Your task to perform on an android device: change keyboard looks Image 0: 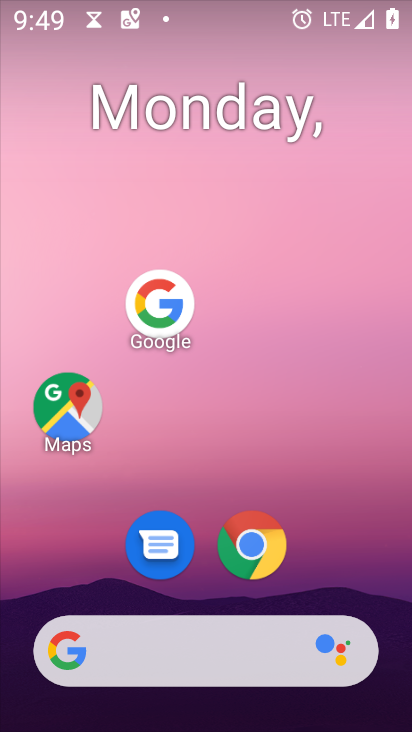
Step 0: press home button
Your task to perform on an android device: change keyboard looks Image 1: 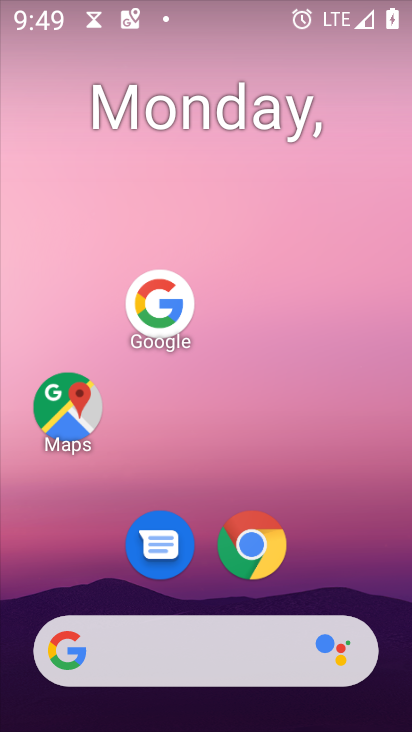
Step 1: drag from (147, 676) to (298, 153)
Your task to perform on an android device: change keyboard looks Image 2: 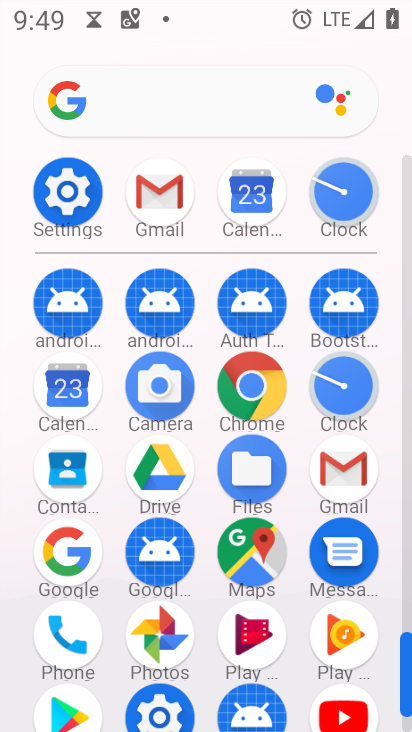
Step 2: click (75, 192)
Your task to perform on an android device: change keyboard looks Image 3: 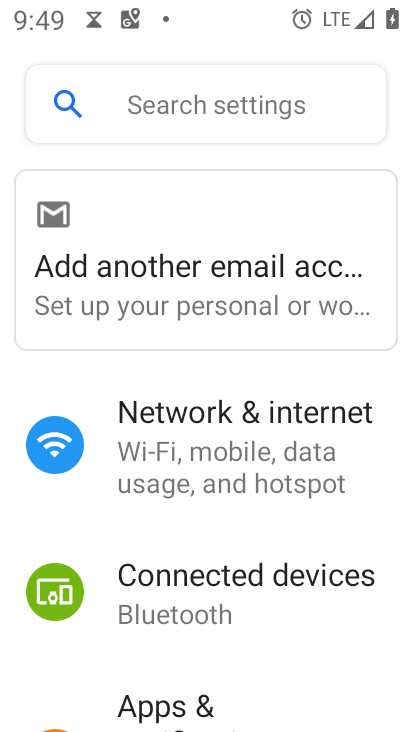
Step 3: drag from (225, 695) to (407, 39)
Your task to perform on an android device: change keyboard looks Image 4: 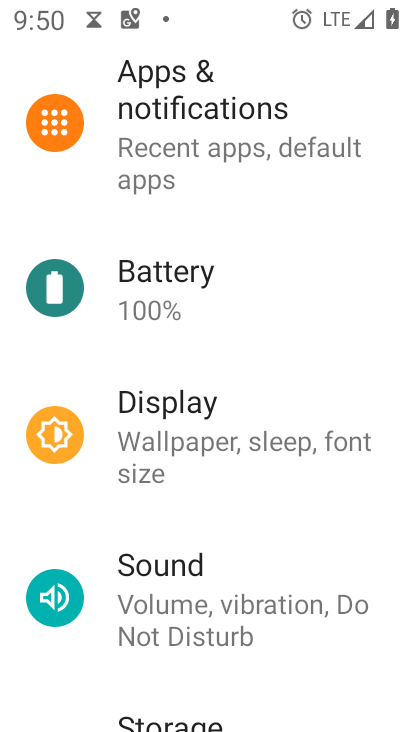
Step 4: drag from (221, 687) to (362, 34)
Your task to perform on an android device: change keyboard looks Image 5: 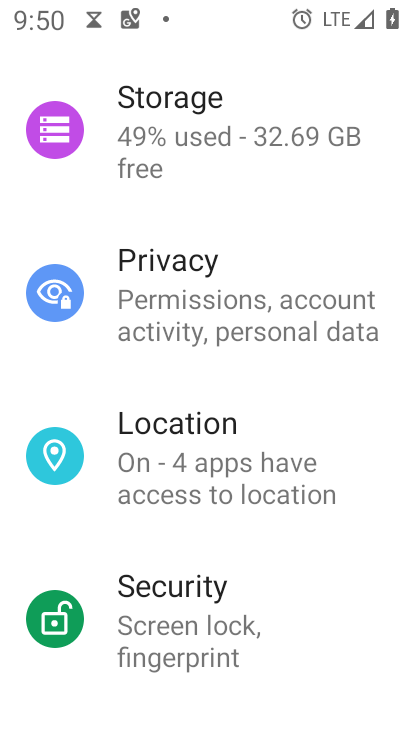
Step 5: drag from (235, 707) to (348, 113)
Your task to perform on an android device: change keyboard looks Image 6: 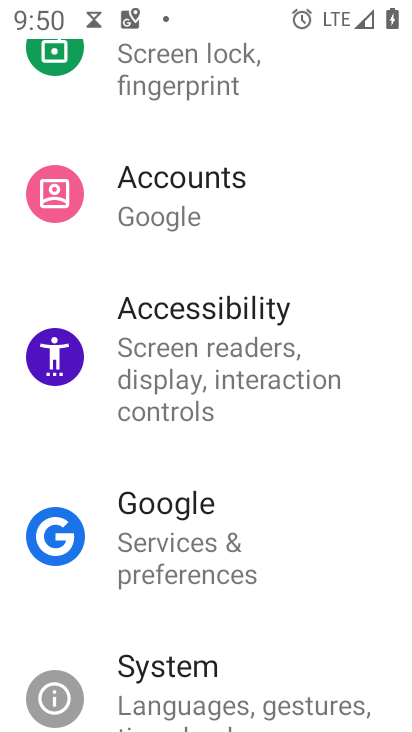
Step 6: drag from (230, 553) to (299, 258)
Your task to perform on an android device: change keyboard looks Image 7: 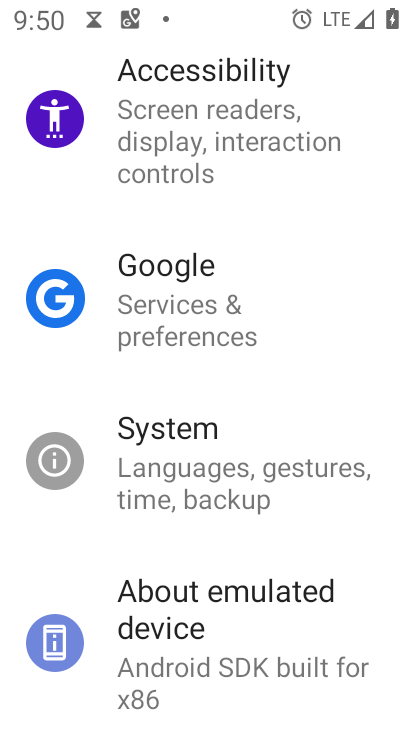
Step 7: click (174, 435)
Your task to perform on an android device: change keyboard looks Image 8: 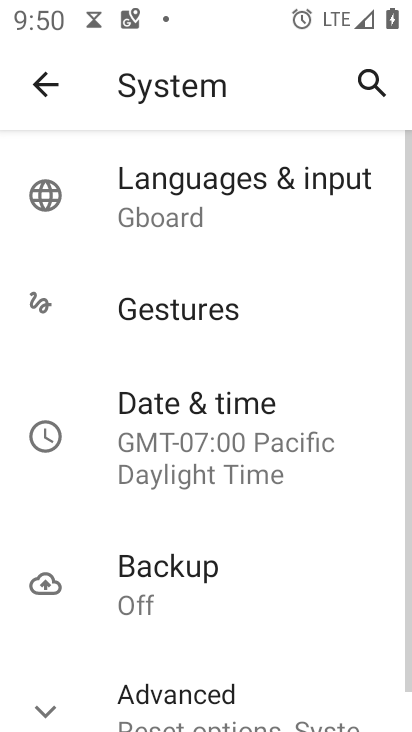
Step 8: click (130, 193)
Your task to perform on an android device: change keyboard looks Image 9: 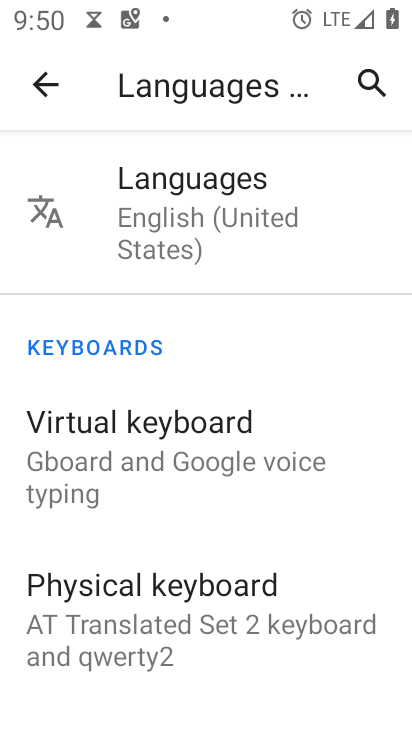
Step 9: click (106, 425)
Your task to perform on an android device: change keyboard looks Image 10: 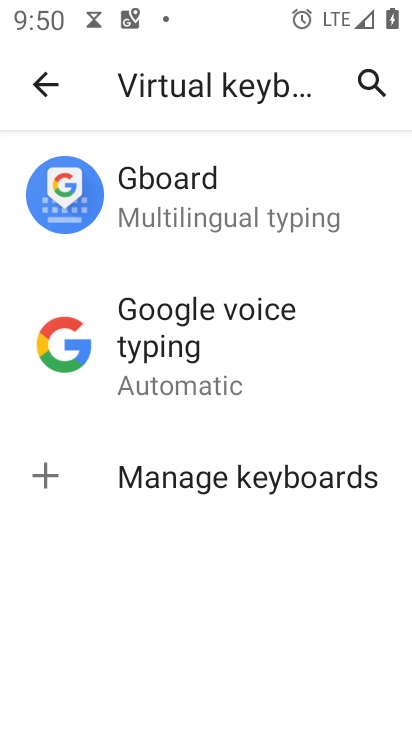
Step 10: click (177, 213)
Your task to perform on an android device: change keyboard looks Image 11: 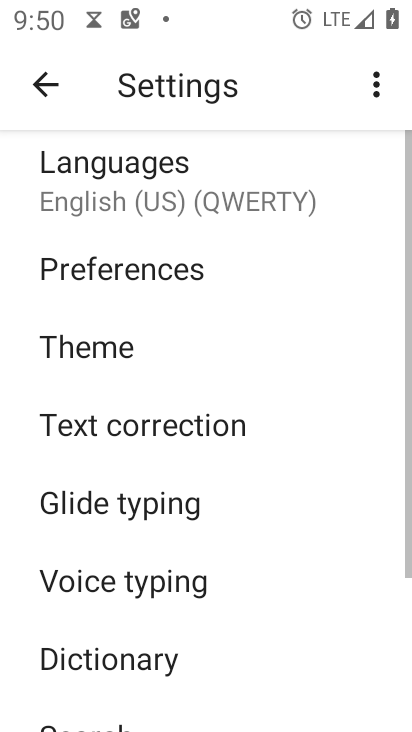
Step 11: click (123, 357)
Your task to perform on an android device: change keyboard looks Image 12: 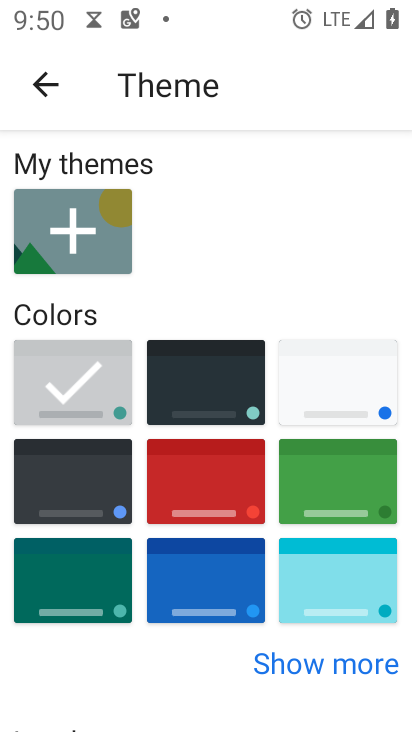
Step 12: click (213, 581)
Your task to perform on an android device: change keyboard looks Image 13: 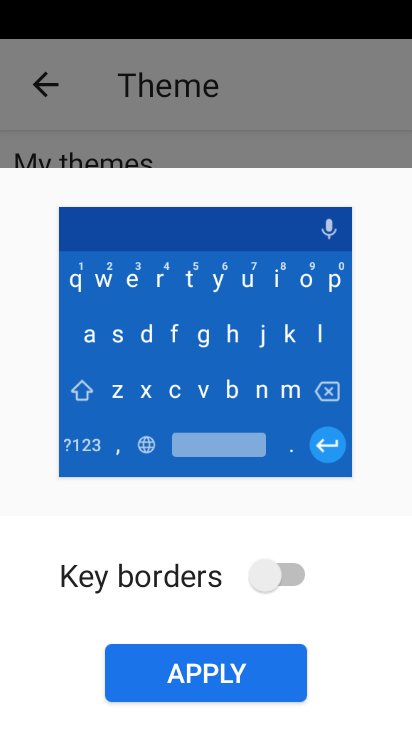
Step 13: click (201, 681)
Your task to perform on an android device: change keyboard looks Image 14: 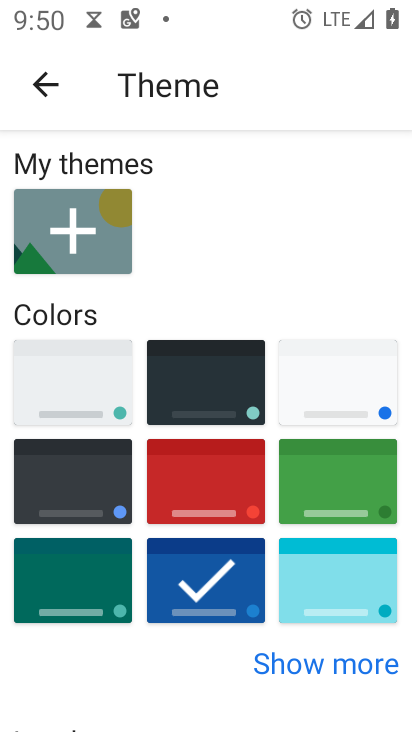
Step 14: task complete